Your task to perform on an android device: turn off picture-in-picture Image 0: 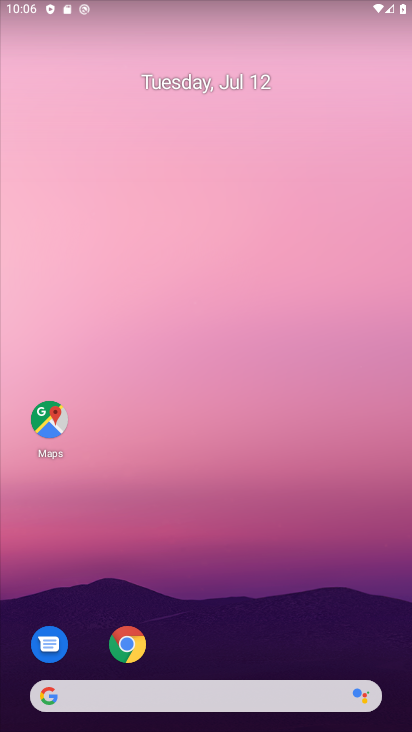
Step 0: drag from (192, 554) to (206, 200)
Your task to perform on an android device: turn off picture-in-picture Image 1: 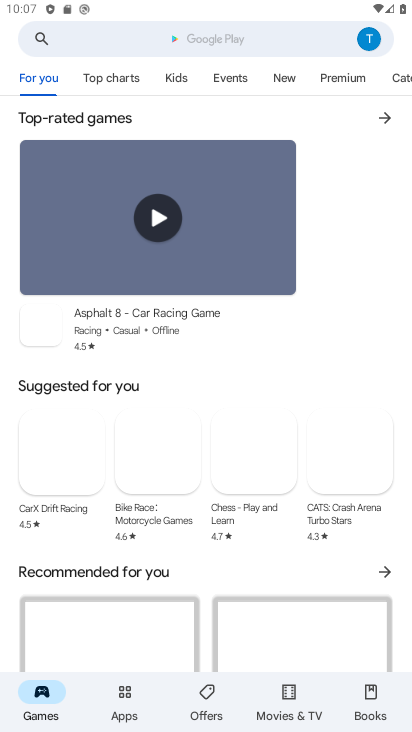
Step 1: press home button
Your task to perform on an android device: turn off picture-in-picture Image 2: 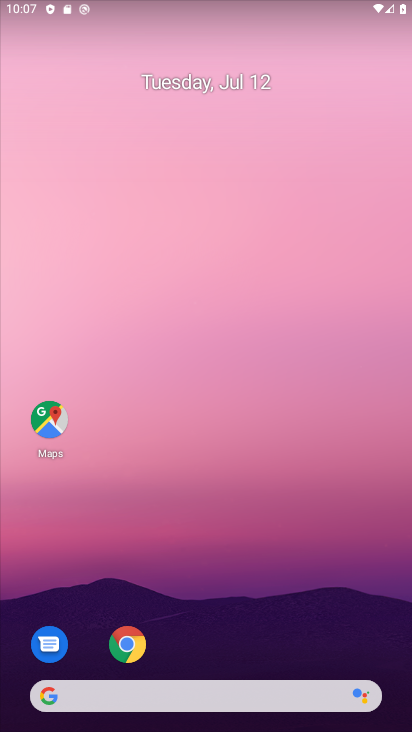
Step 2: click (124, 647)
Your task to perform on an android device: turn off picture-in-picture Image 3: 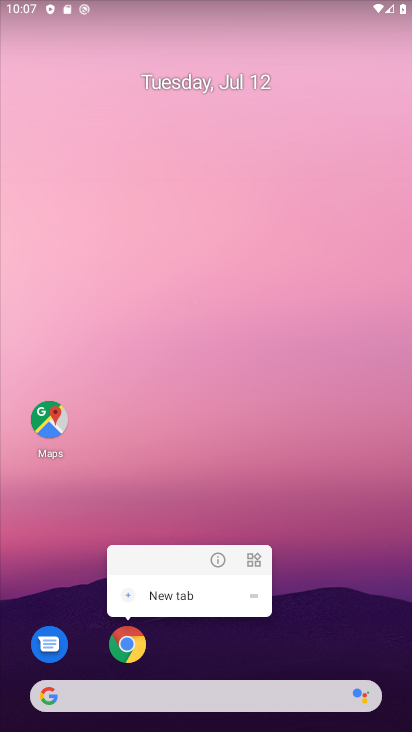
Step 3: click (219, 556)
Your task to perform on an android device: turn off picture-in-picture Image 4: 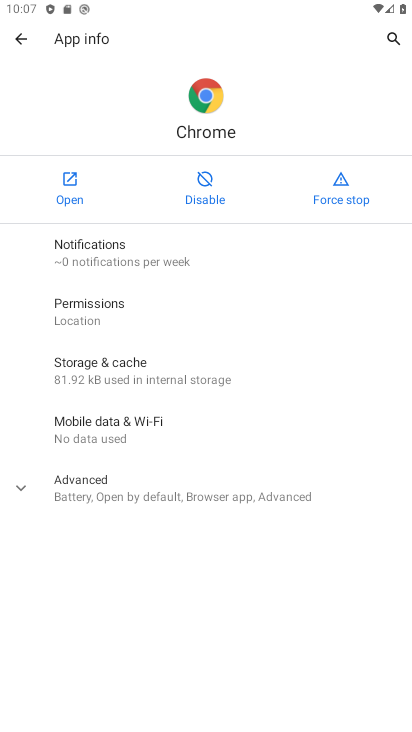
Step 4: click (112, 501)
Your task to perform on an android device: turn off picture-in-picture Image 5: 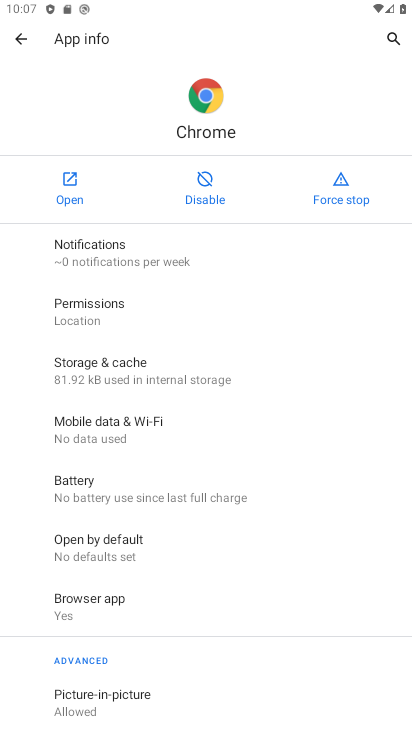
Step 5: task complete